Your task to perform on an android device: change notification settings in the gmail app Image 0: 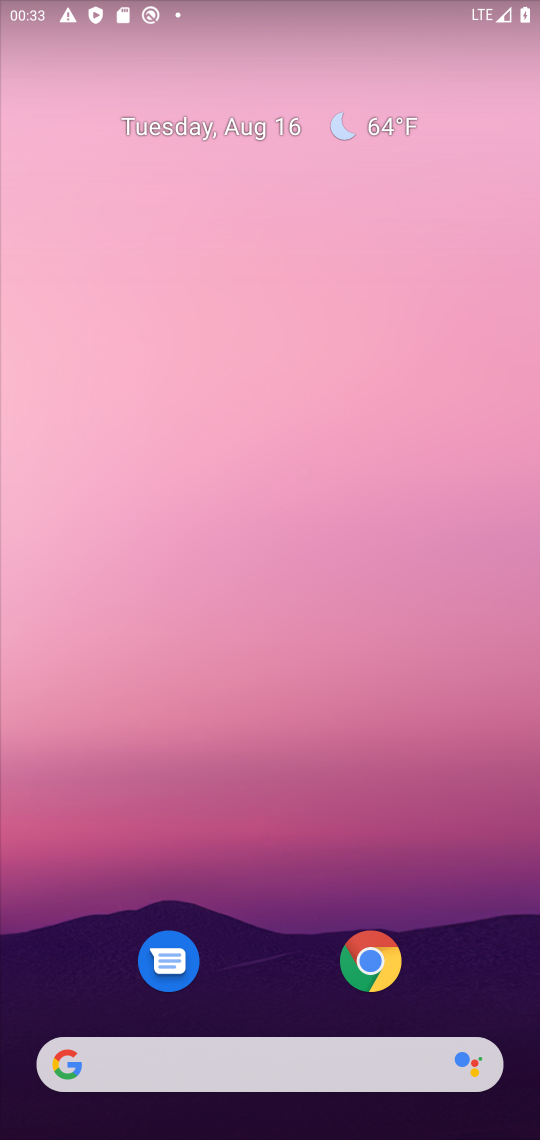
Step 0: drag from (266, 1013) to (214, 60)
Your task to perform on an android device: change notification settings in the gmail app Image 1: 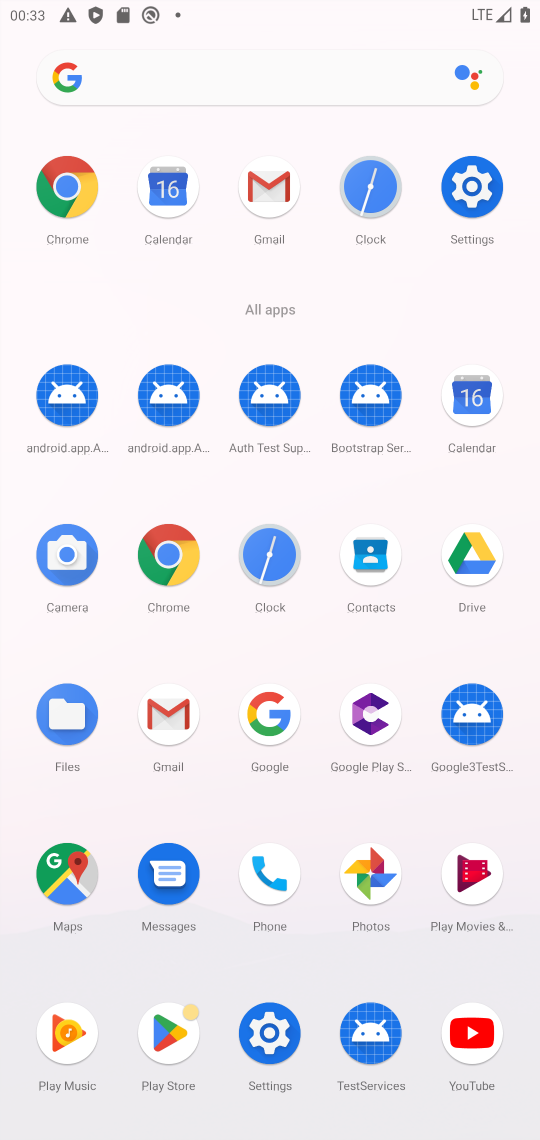
Step 1: click (191, 750)
Your task to perform on an android device: change notification settings in the gmail app Image 2: 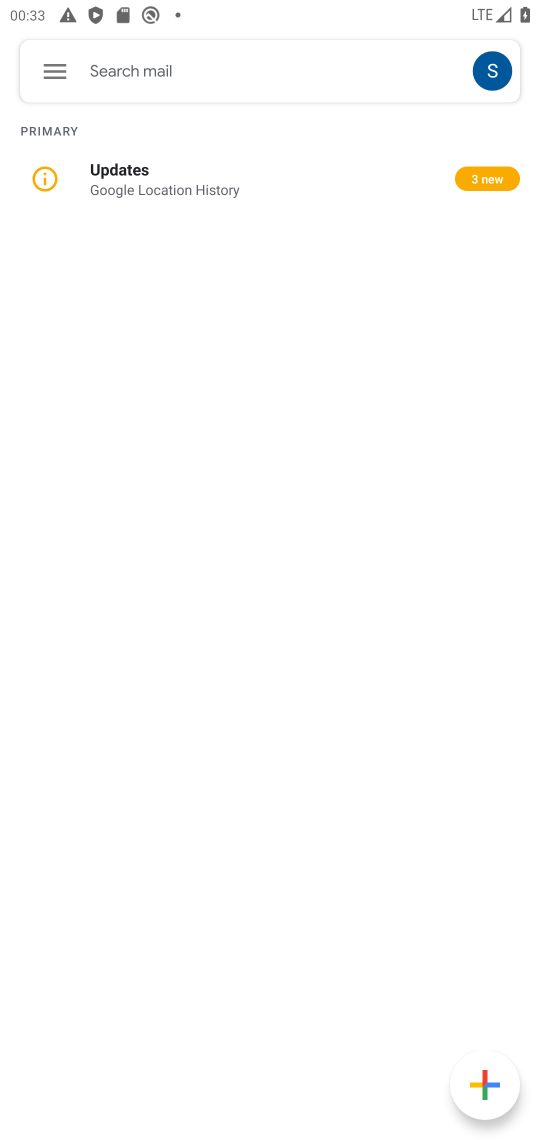
Step 2: press back button
Your task to perform on an android device: change notification settings in the gmail app Image 3: 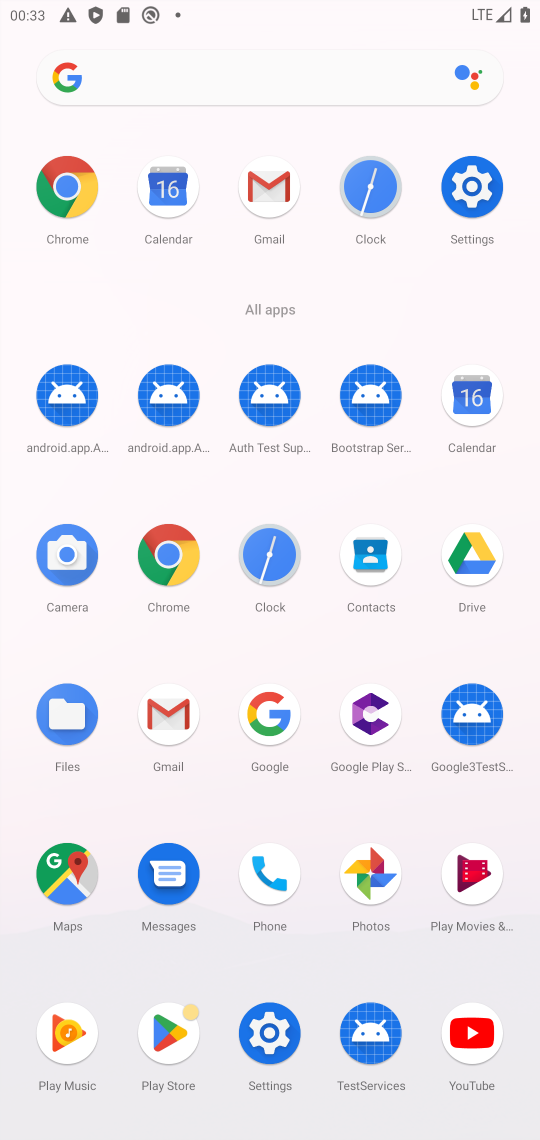
Step 3: click (159, 719)
Your task to perform on an android device: change notification settings in the gmail app Image 4: 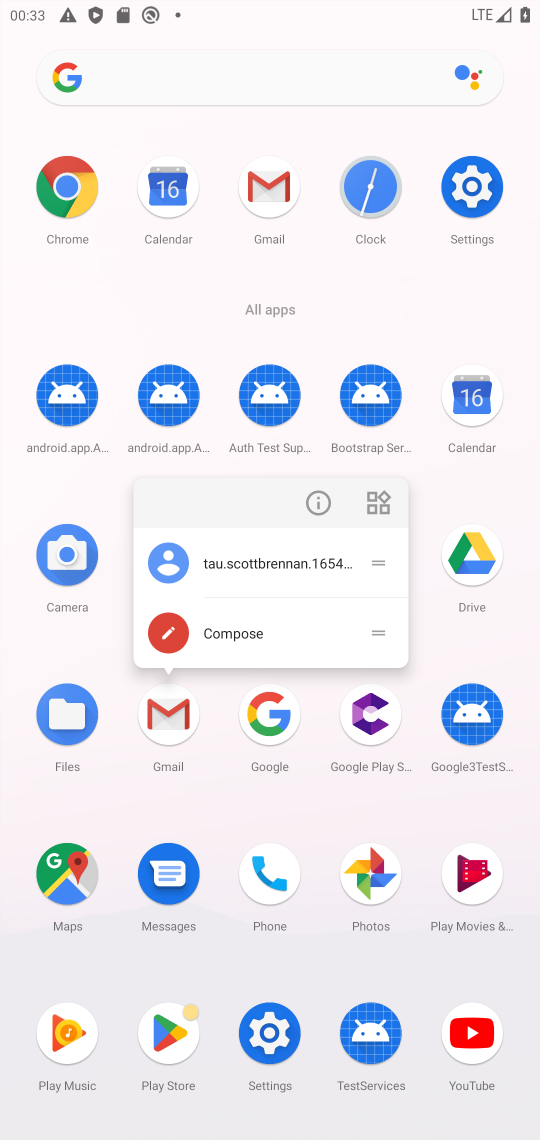
Step 4: click (320, 490)
Your task to perform on an android device: change notification settings in the gmail app Image 5: 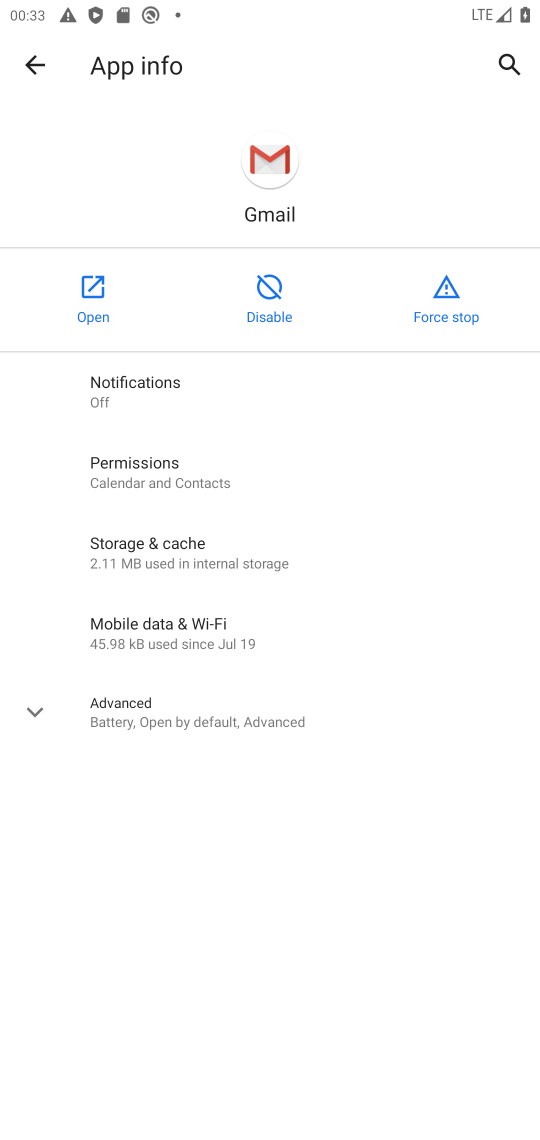
Step 5: click (175, 397)
Your task to perform on an android device: change notification settings in the gmail app Image 6: 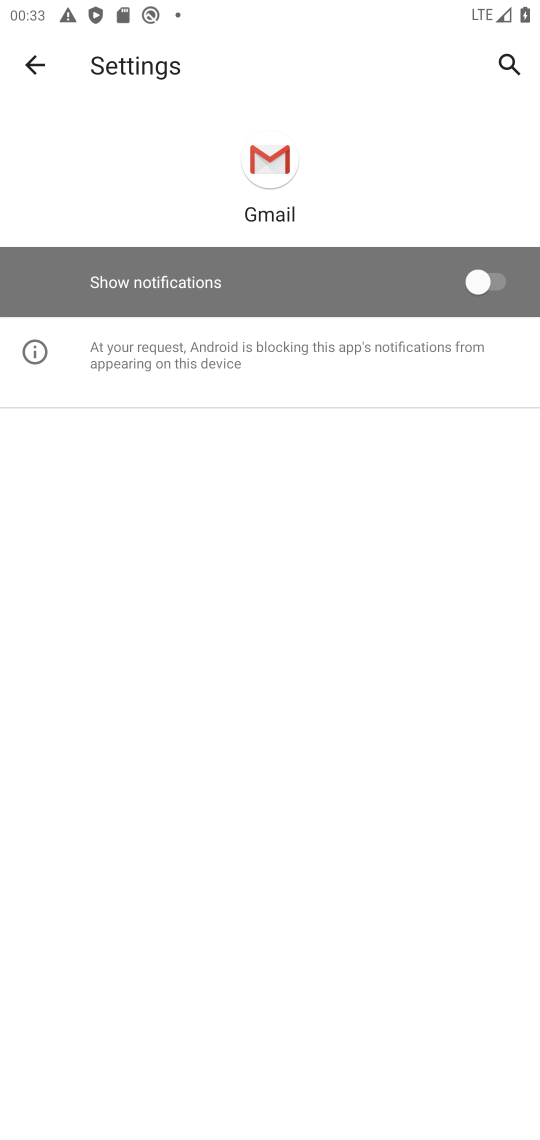
Step 6: click (304, 284)
Your task to perform on an android device: change notification settings in the gmail app Image 7: 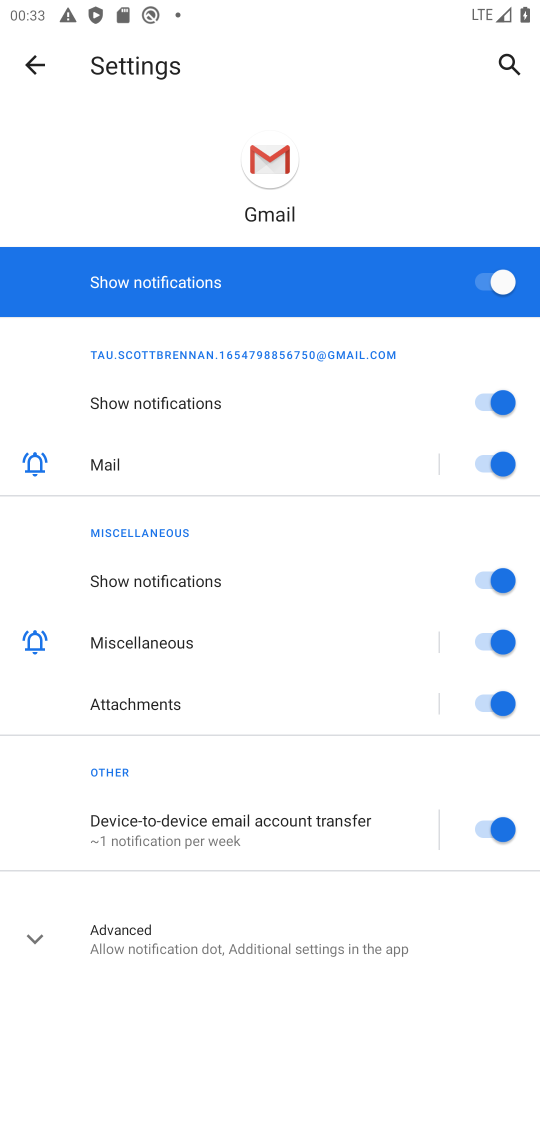
Step 7: task complete